Your task to perform on an android device: turn on showing notifications on the lock screen Image 0: 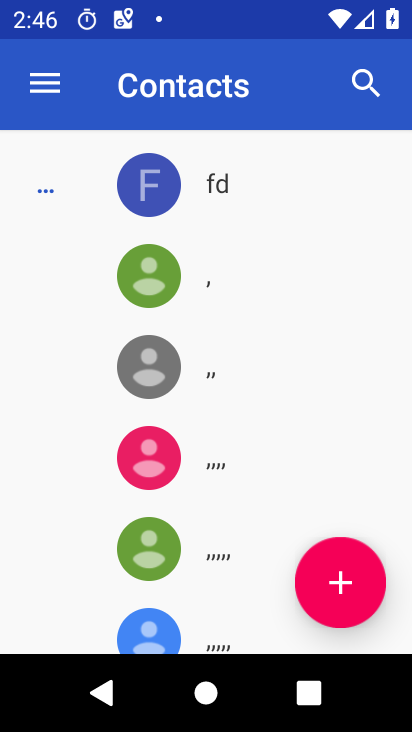
Step 0: press home button
Your task to perform on an android device: turn on showing notifications on the lock screen Image 1: 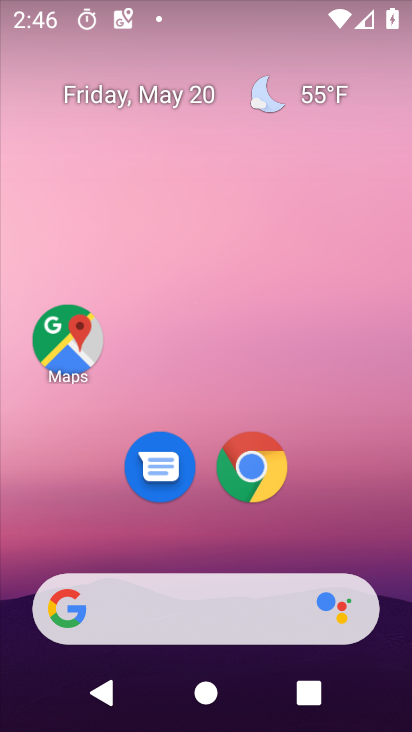
Step 1: drag from (192, 551) to (192, 51)
Your task to perform on an android device: turn on showing notifications on the lock screen Image 2: 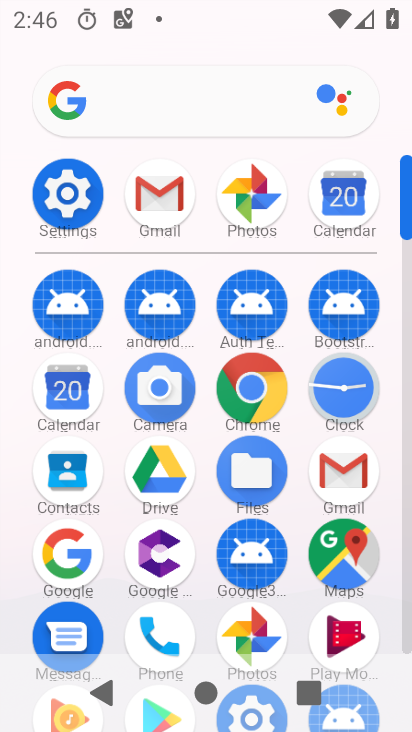
Step 2: click (69, 193)
Your task to perform on an android device: turn on showing notifications on the lock screen Image 3: 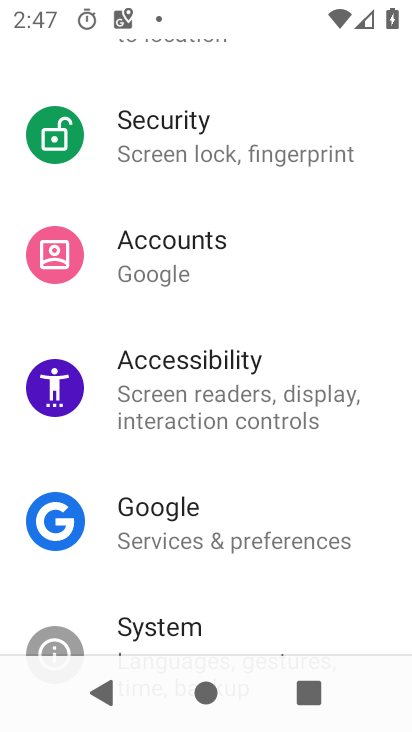
Step 3: drag from (135, 265) to (230, 621)
Your task to perform on an android device: turn on showing notifications on the lock screen Image 4: 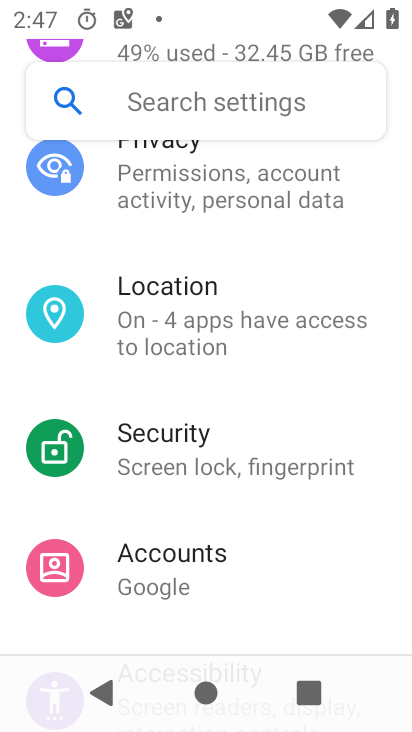
Step 4: drag from (166, 332) to (205, 582)
Your task to perform on an android device: turn on showing notifications on the lock screen Image 5: 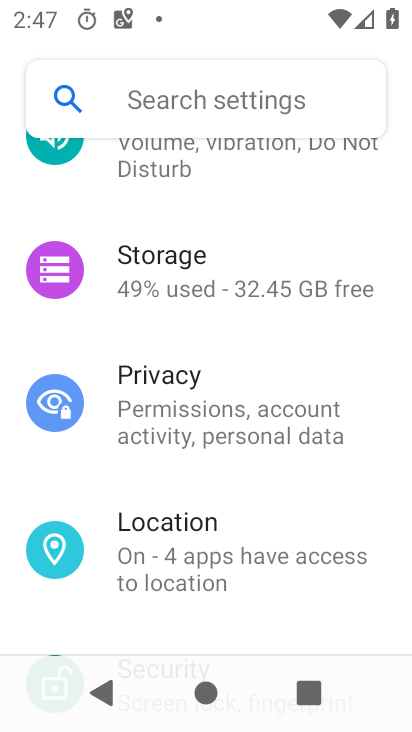
Step 5: drag from (140, 303) to (186, 533)
Your task to perform on an android device: turn on showing notifications on the lock screen Image 6: 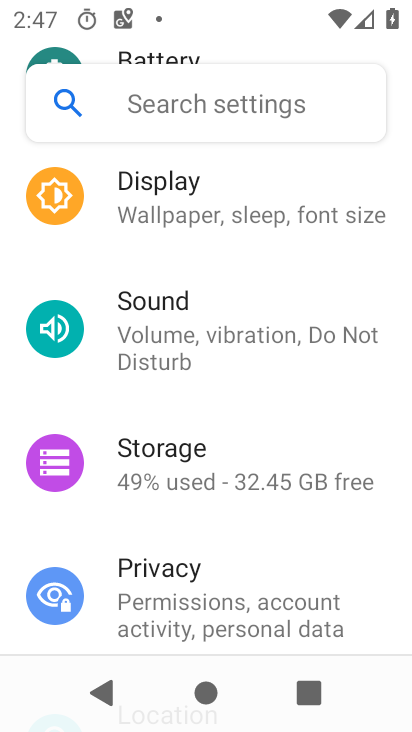
Step 6: drag from (209, 236) to (275, 623)
Your task to perform on an android device: turn on showing notifications on the lock screen Image 7: 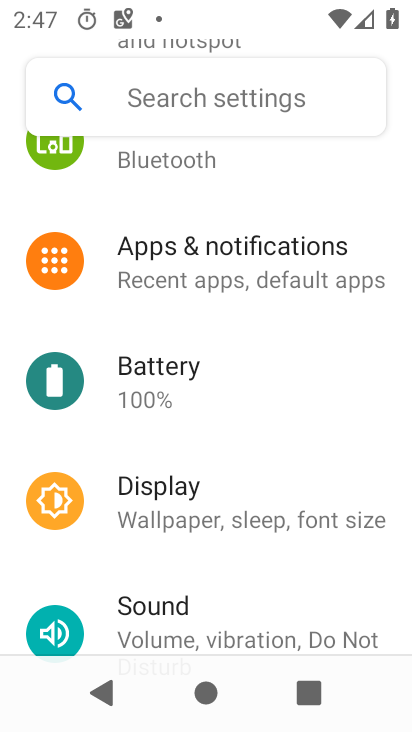
Step 7: click (224, 265)
Your task to perform on an android device: turn on showing notifications on the lock screen Image 8: 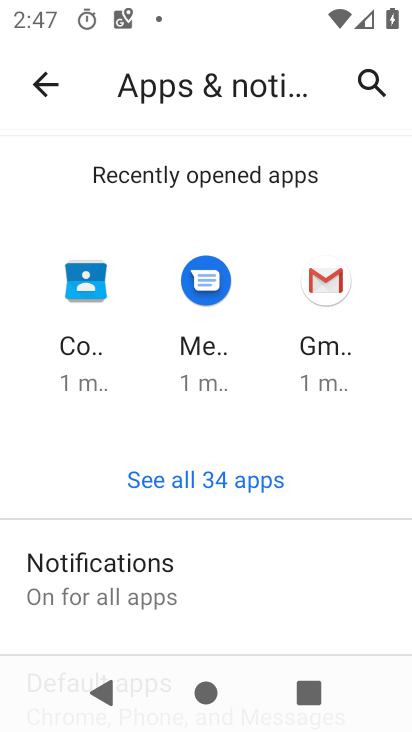
Step 8: click (159, 601)
Your task to perform on an android device: turn on showing notifications on the lock screen Image 9: 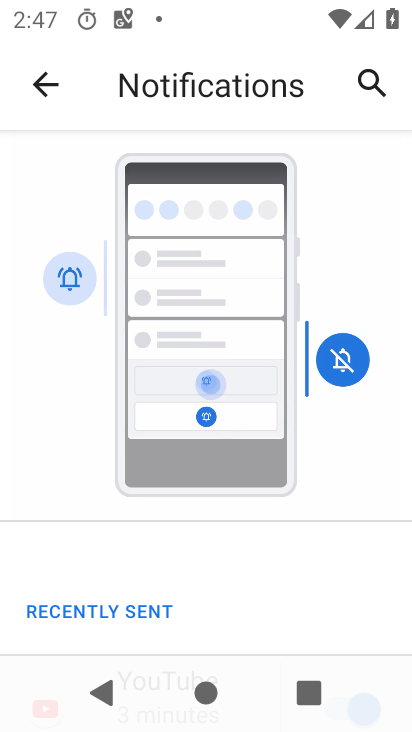
Step 9: drag from (129, 622) to (149, 118)
Your task to perform on an android device: turn on showing notifications on the lock screen Image 10: 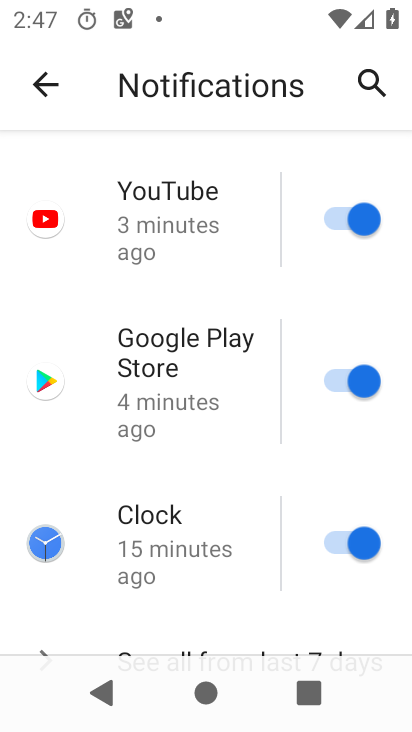
Step 10: drag from (167, 573) to (106, 178)
Your task to perform on an android device: turn on showing notifications on the lock screen Image 11: 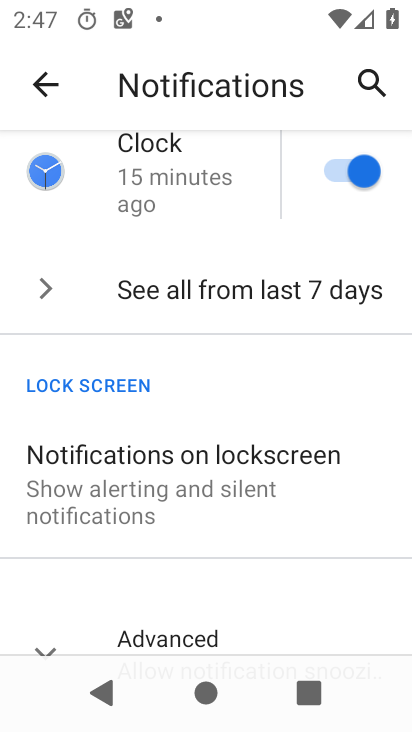
Step 11: click (133, 492)
Your task to perform on an android device: turn on showing notifications on the lock screen Image 12: 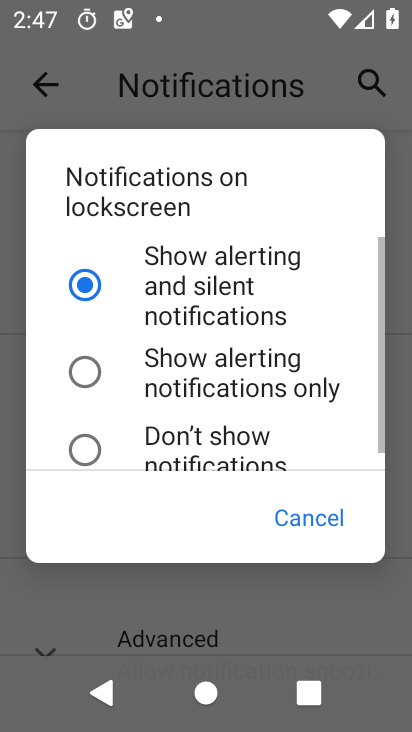
Step 12: click (158, 356)
Your task to perform on an android device: turn on showing notifications on the lock screen Image 13: 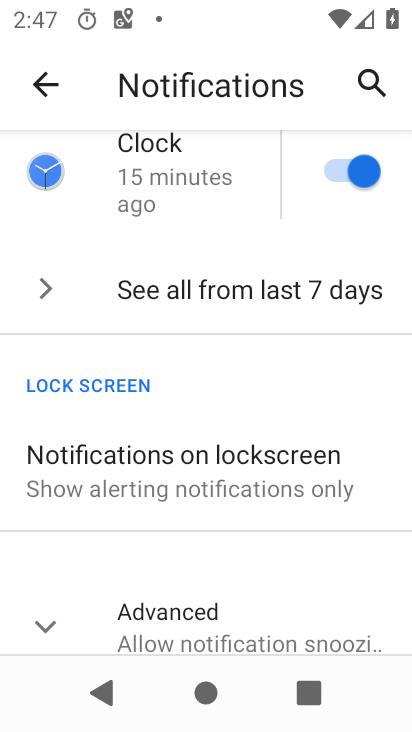
Step 13: task complete